Your task to perform on an android device: open device folders in google photos Image 0: 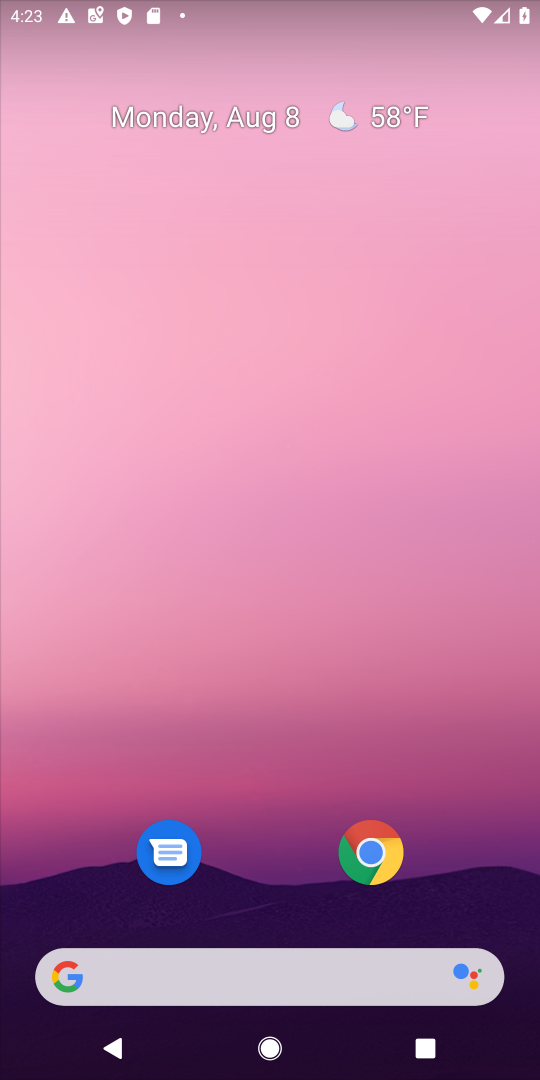
Step 0: drag from (254, 881) to (364, 99)
Your task to perform on an android device: open device folders in google photos Image 1: 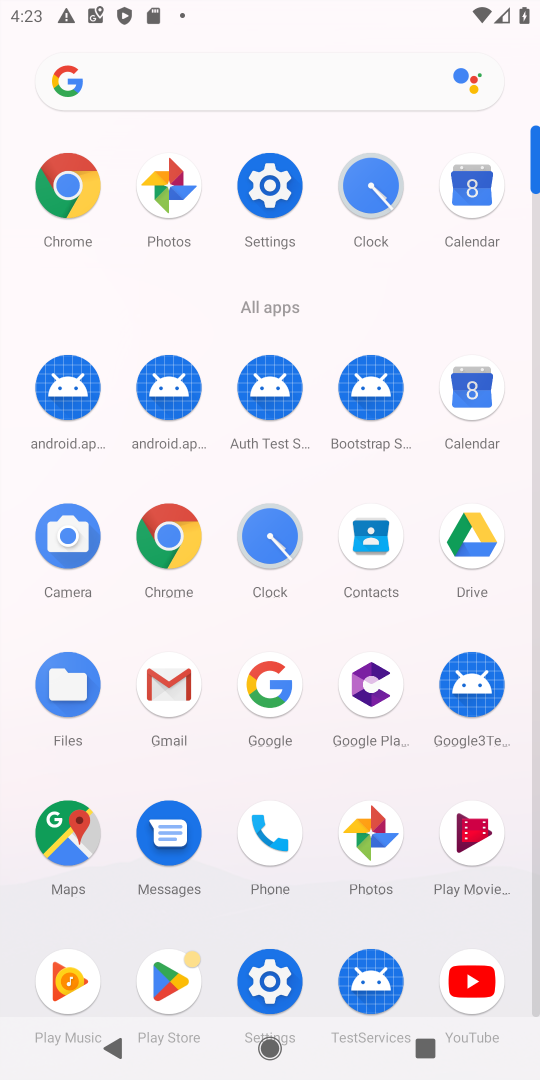
Step 1: click (369, 828)
Your task to perform on an android device: open device folders in google photos Image 2: 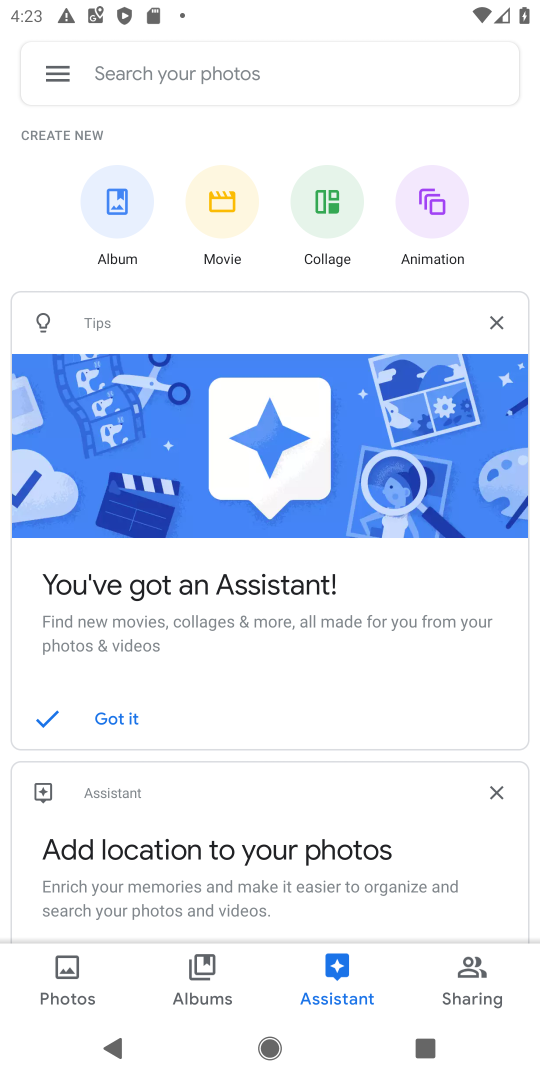
Step 2: click (53, 69)
Your task to perform on an android device: open device folders in google photos Image 3: 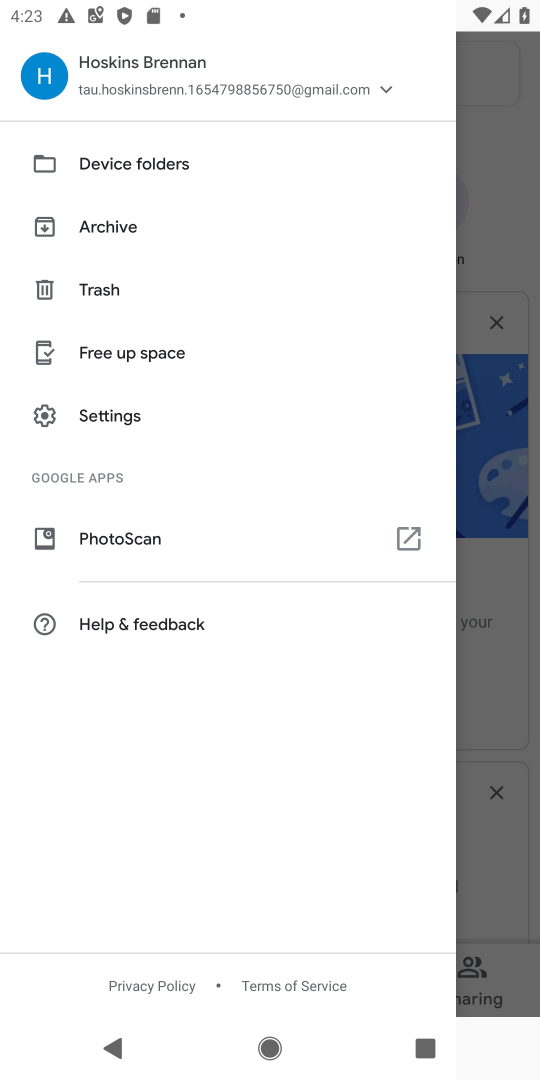
Step 3: click (127, 156)
Your task to perform on an android device: open device folders in google photos Image 4: 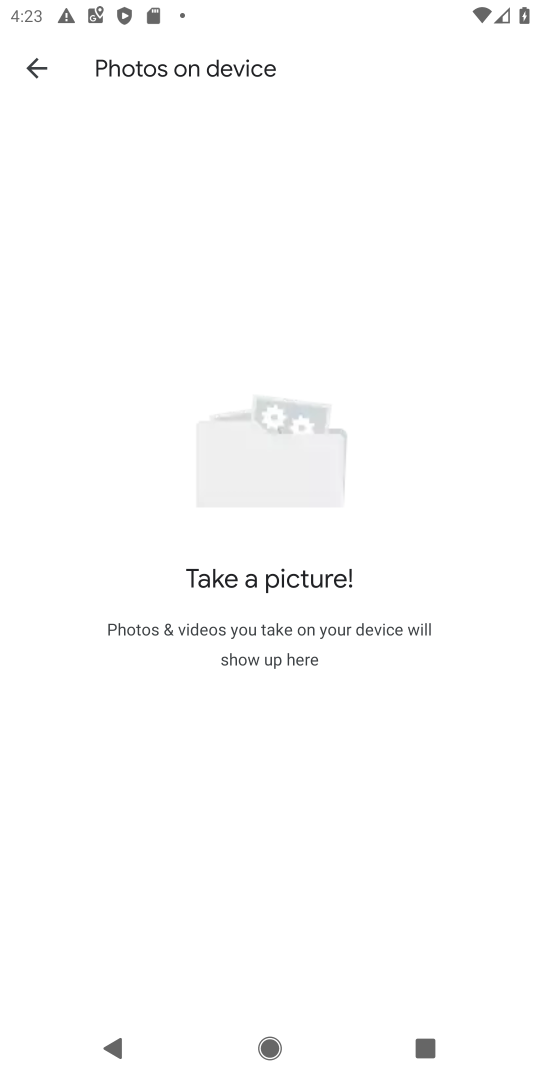
Step 4: task complete